Your task to perform on an android device: Show me popular videos on Youtube Image 0: 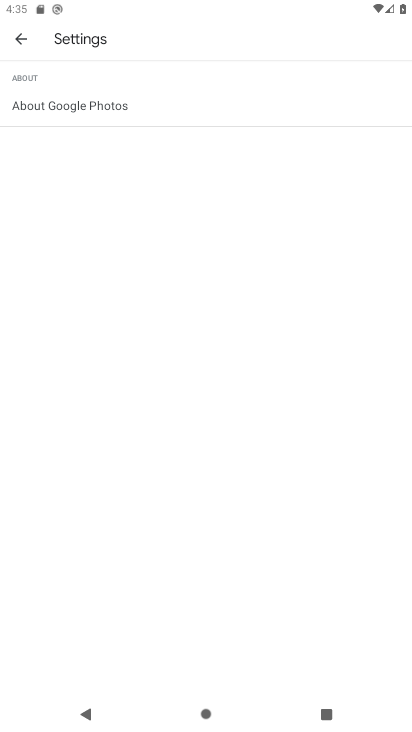
Step 0: press home button
Your task to perform on an android device: Show me popular videos on Youtube Image 1: 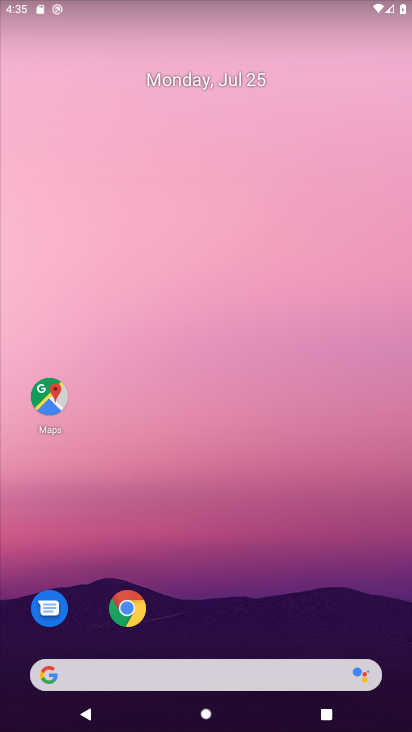
Step 1: drag from (215, 580) to (261, 10)
Your task to perform on an android device: Show me popular videos on Youtube Image 2: 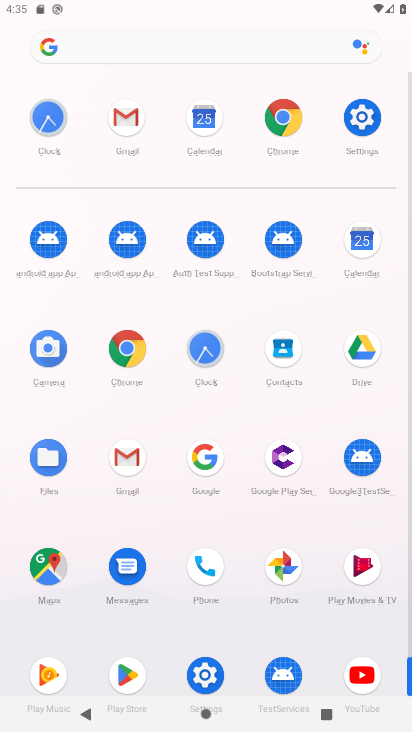
Step 2: click (362, 667)
Your task to perform on an android device: Show me popular videos on Youtube Image 3: 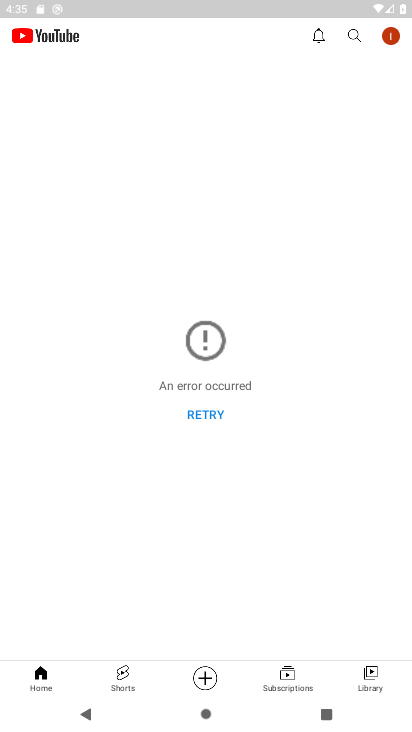
Step 3: click (196, 406)
Your task to perform on an android device: Show me popular videos on Youtube Image 4: 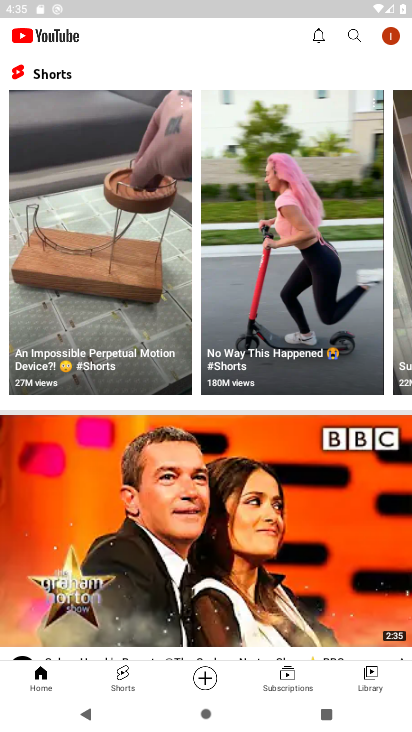
Step 4: drag from (72, 171) to (31, 495)
Your task to perform on an android device: Show me popular videos on Youtube Image 5: 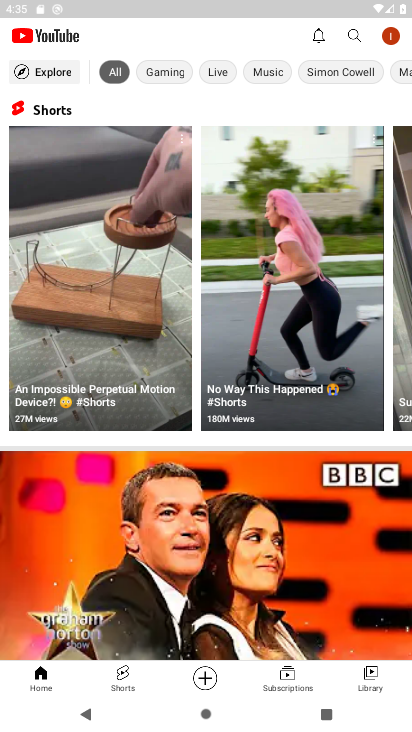
Step 5: click (45, 75)
Your task to perform on an android device: Show me popular videos on Youtube Image 6: 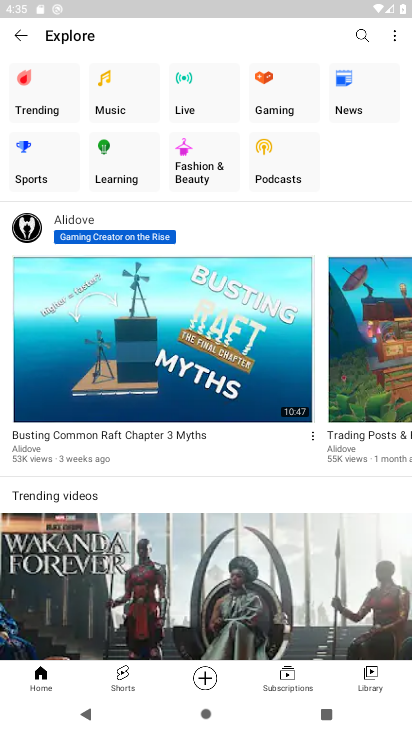
Step 6: click (37, 101)
Your task to perform on an android device: Show me popular videos on Youtube Image 7: 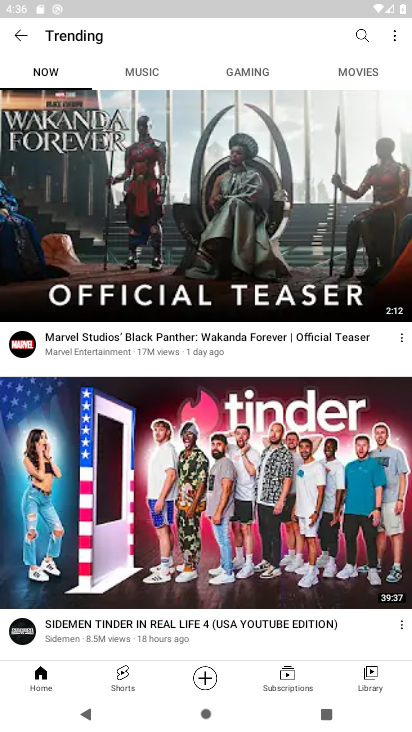
Step 7: task complete